Your task to perform on an android device: Open sound settings Image 0: 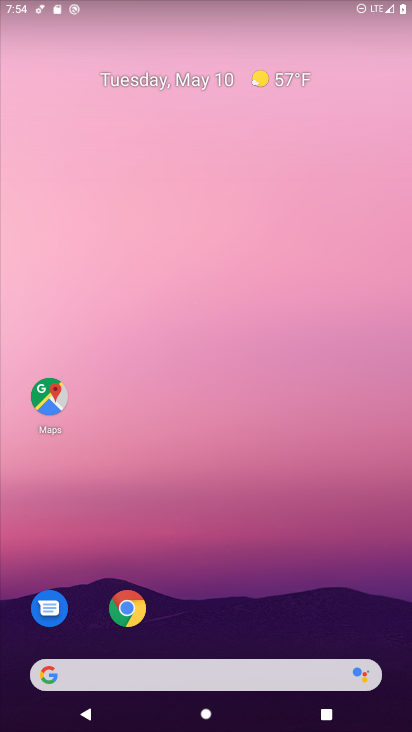
Step 0: drag from (331, 620) to (273, 82)
Your task to perform on an android device: Open sound settings Image 1: 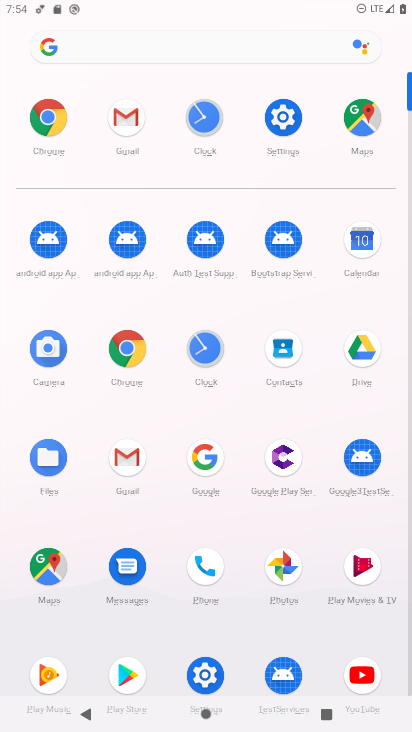
Step 1: click (212, 677)
Your task to perform on an android device: Open sound settings Image 2: 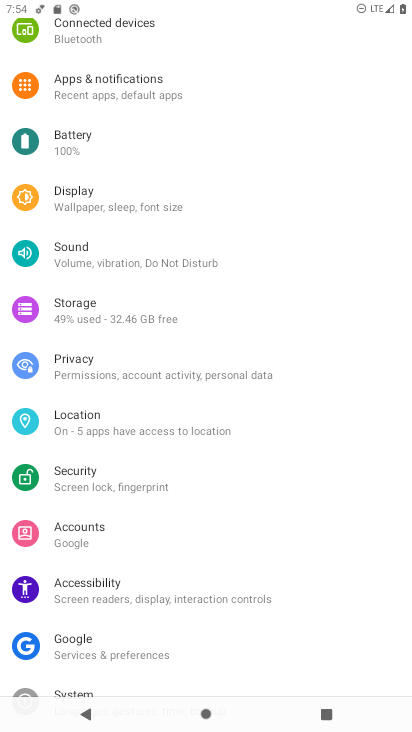
Step 2: click (106, 268)
Your task to perform on an android device: Open sound settings Image 3: 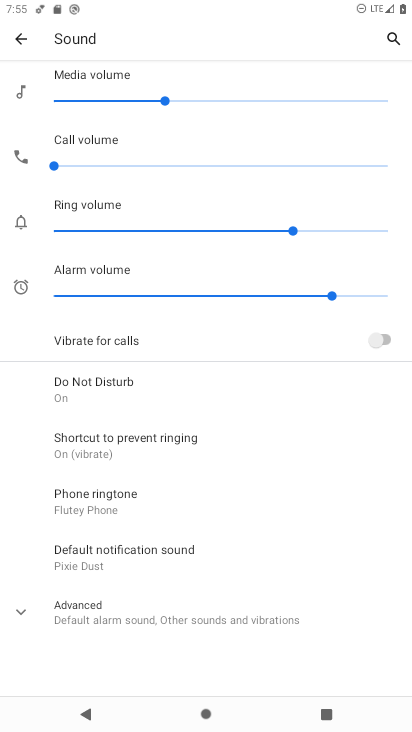
Step 3: task complete